Your task to perform on an android device: turn on airplane mode Image 0: 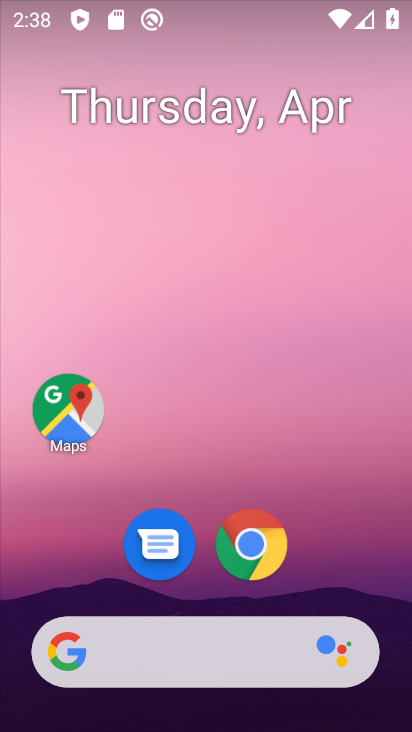
Step 0: drag from (222, 50) to (213, 369)
Your task to perform on an android device: turn on airplane mode Image 1: 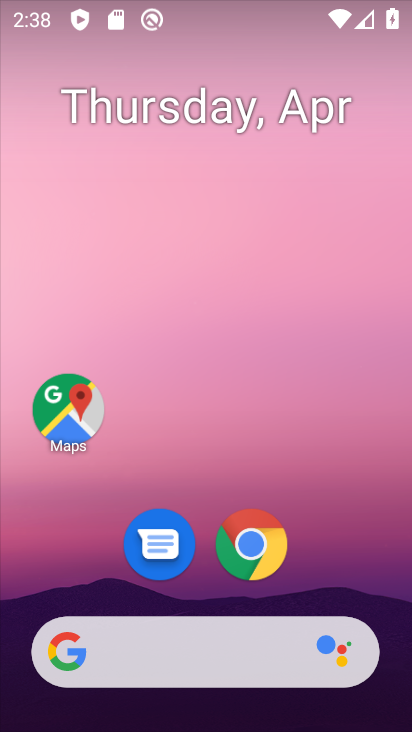
Step 1: drag from (256, 12) to (250, 575)
Your task to perform on an android device: turn on airplane mode Image 2: 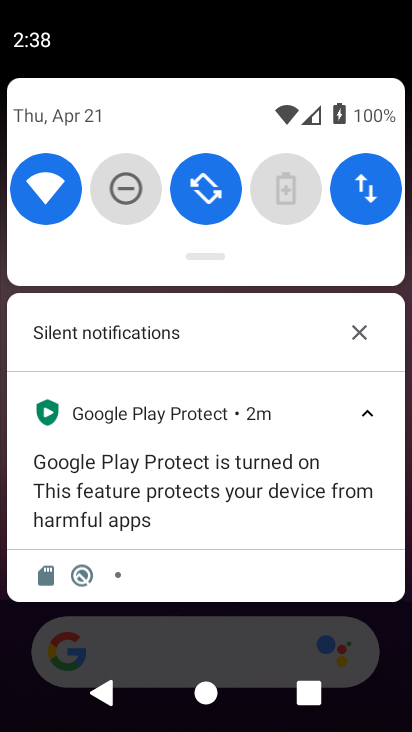
Step 2: drag from (220, 260) to (268, 726)
Your task to perform on an android device: turn on airplane mode Image 3: 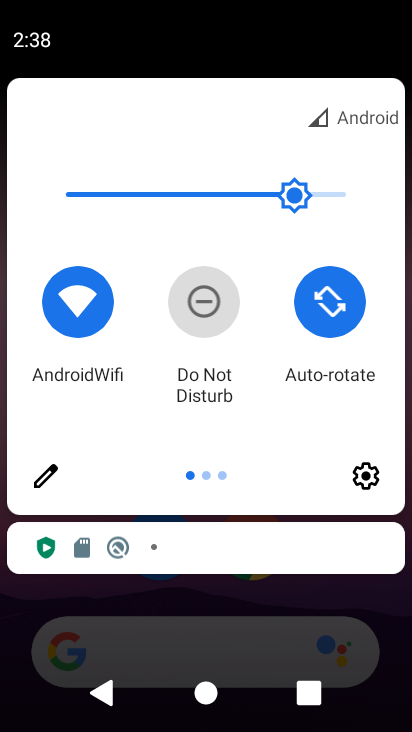
Step 3: drag from (352, 325) to (62, 328)
Your task to perform on an android device: turn on airplane mode Image 4: 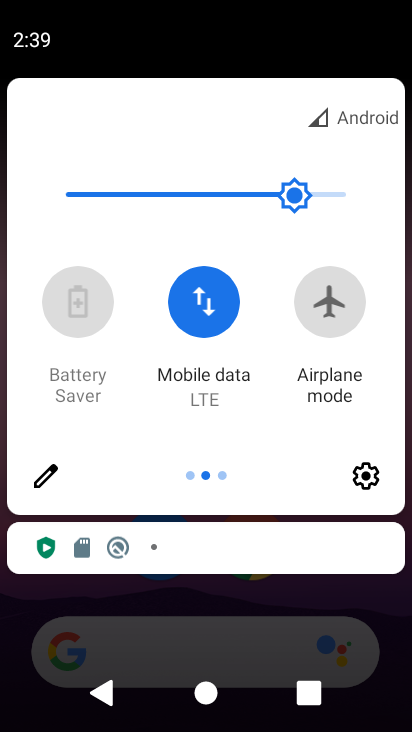
Step 4: click (330, 298)
Your task to perform on an android device: turn on airplane mode Image 5: 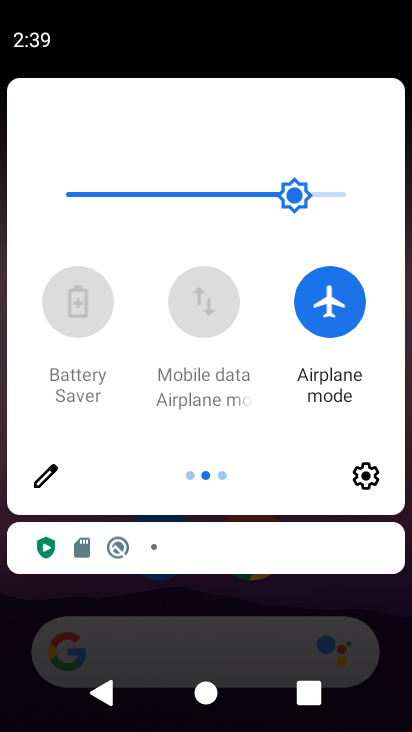
Step 5: task complete